Your task to perform on an android device: Go to Wikipedia Image 0: 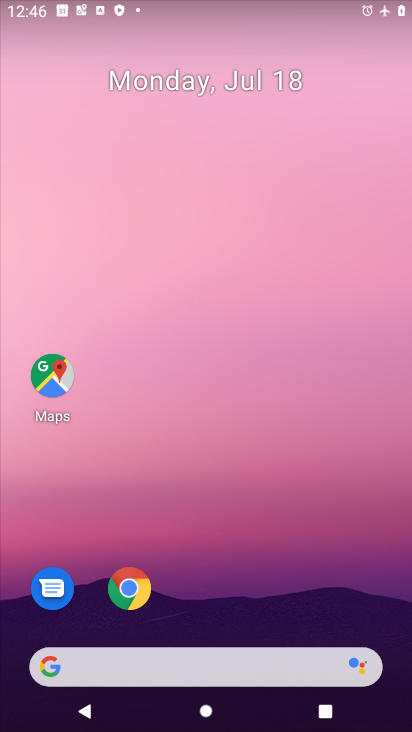
Step 0: drag from (210, 644) to (255, 165)
Your task to perform on an android device: Go to Wikipedia Image 1: 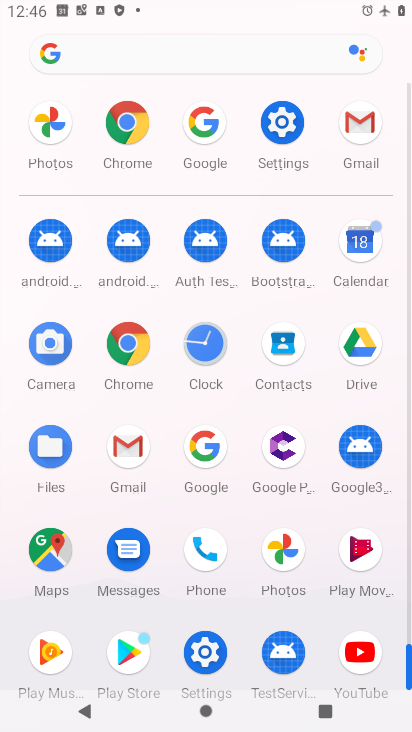
Step 1: click (126, 364)
Your task to perform on an android device: Go to Wikipedia Image 2: 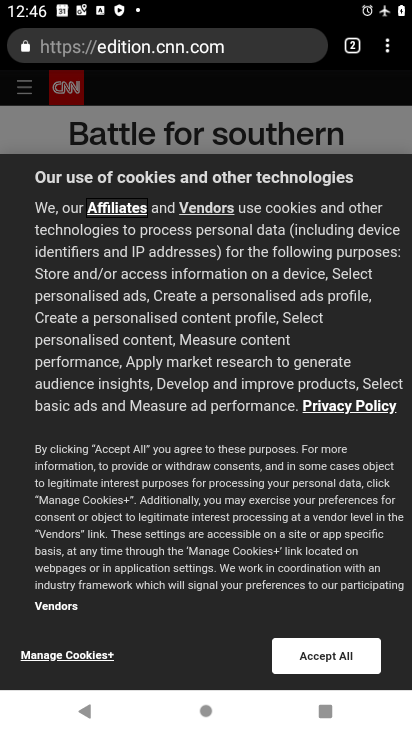
Step 2: click (277, 51)
Your task to perform on an android device: Go to Wikipedia Image 3: 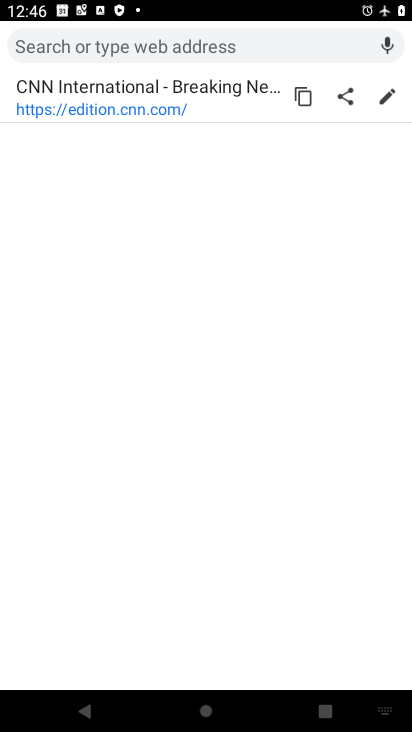
Step 3: type "wikipedia"
Your task to perform on an android device: Go to Wikipedia Image 4: 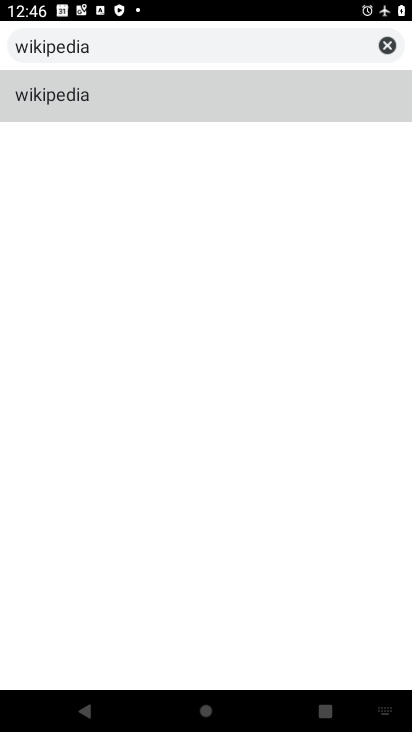
Step 4: task complete